Your task to perform on an android device: Go to Yahoo.com Image 0: 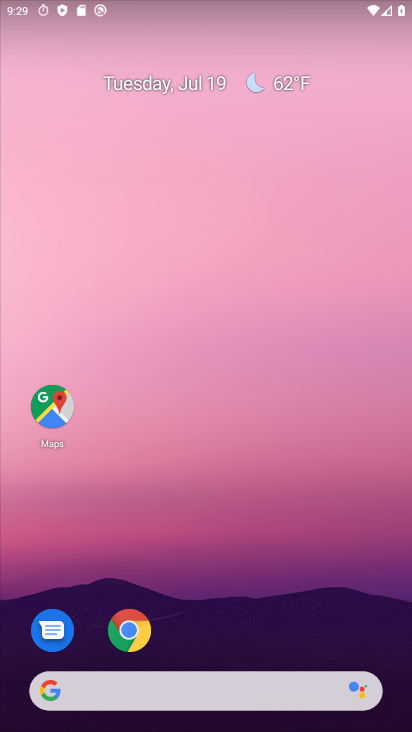
Step 0: click (123, 634)
Your task to perform on an android device: Go to Yahoo.com Image 1: 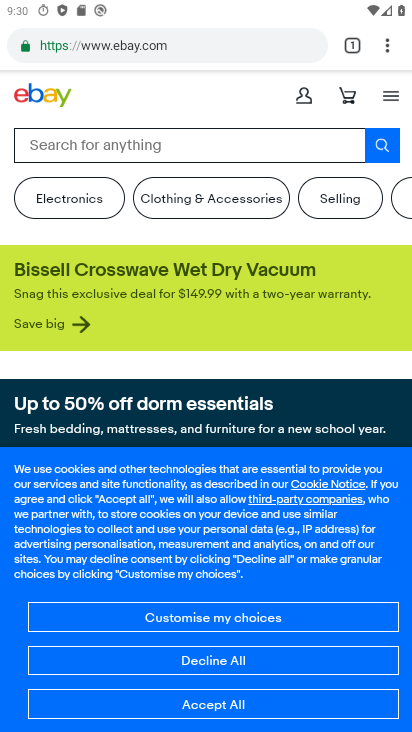
Step 1: click (353, 49)
Your task to perform on an android device: Go to Yahoo.com Image 2: 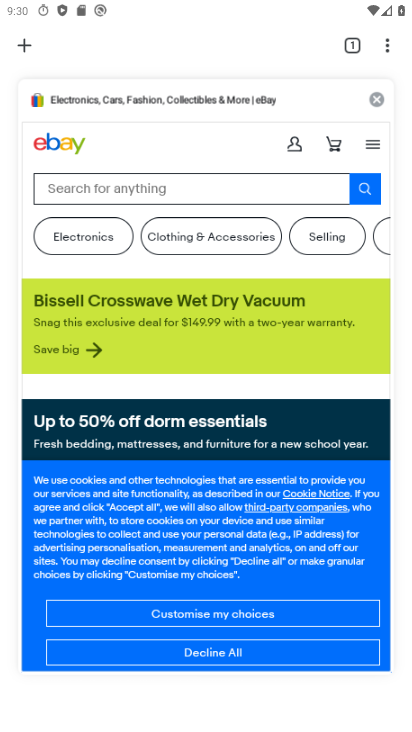
Step 2: click (371, 93)
Your task to perform on an android device: Go to Yahoo.com Image 3: 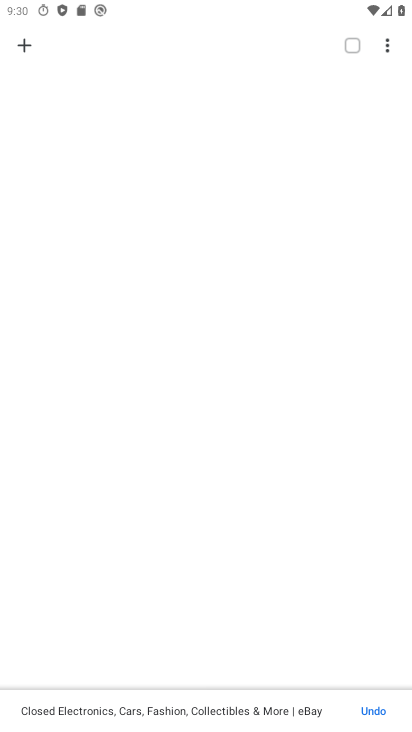
Step 3: click (19, 46)
Your task to perform on an android device: Go to Yahoo.com Image 4: 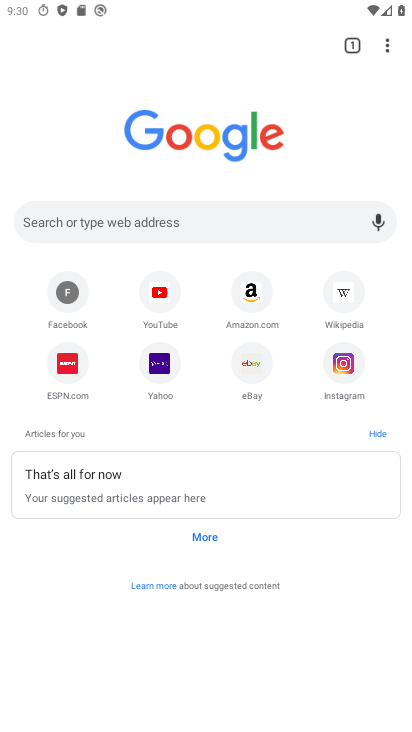
Step 4: click (147, 359)
Your task to perform on an android device: Go to Yahoo.com Image 5: 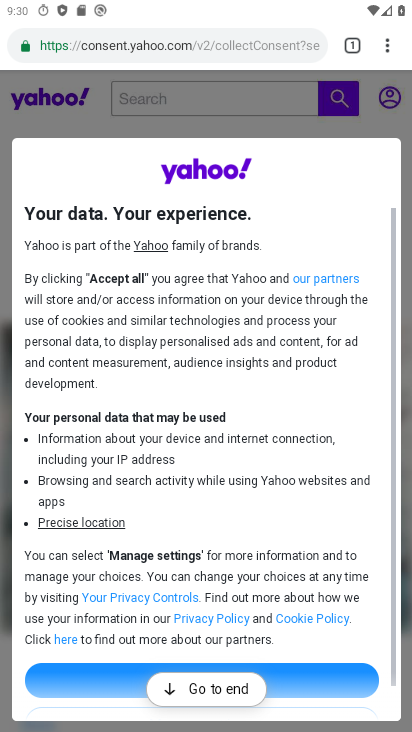
Step 5: task complete